Your task to perform on an android device: install app "Duolingo: language lessons" Image 0: 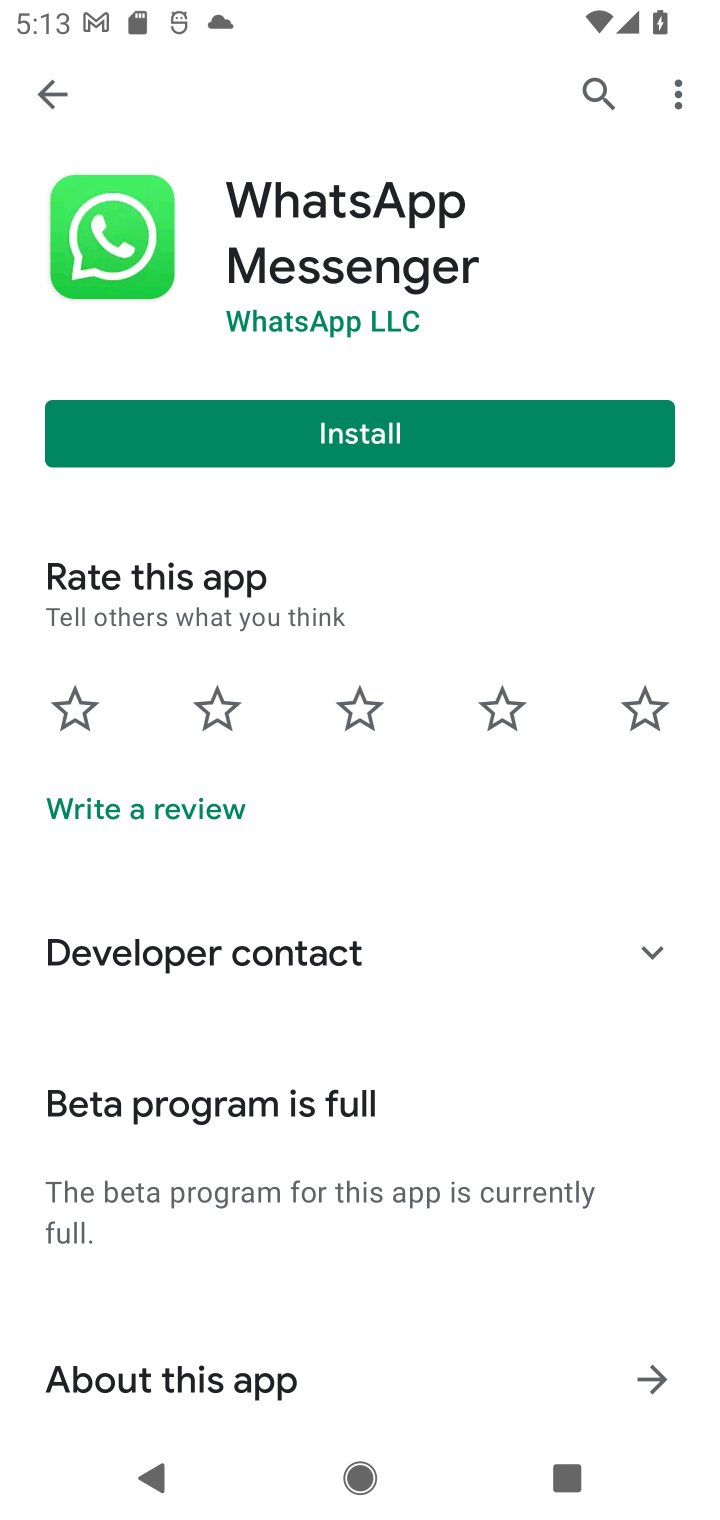
Step 0: click (713, 404)
Your task to perform on an android device: install app "Duolingo: language lessons" Image 1: 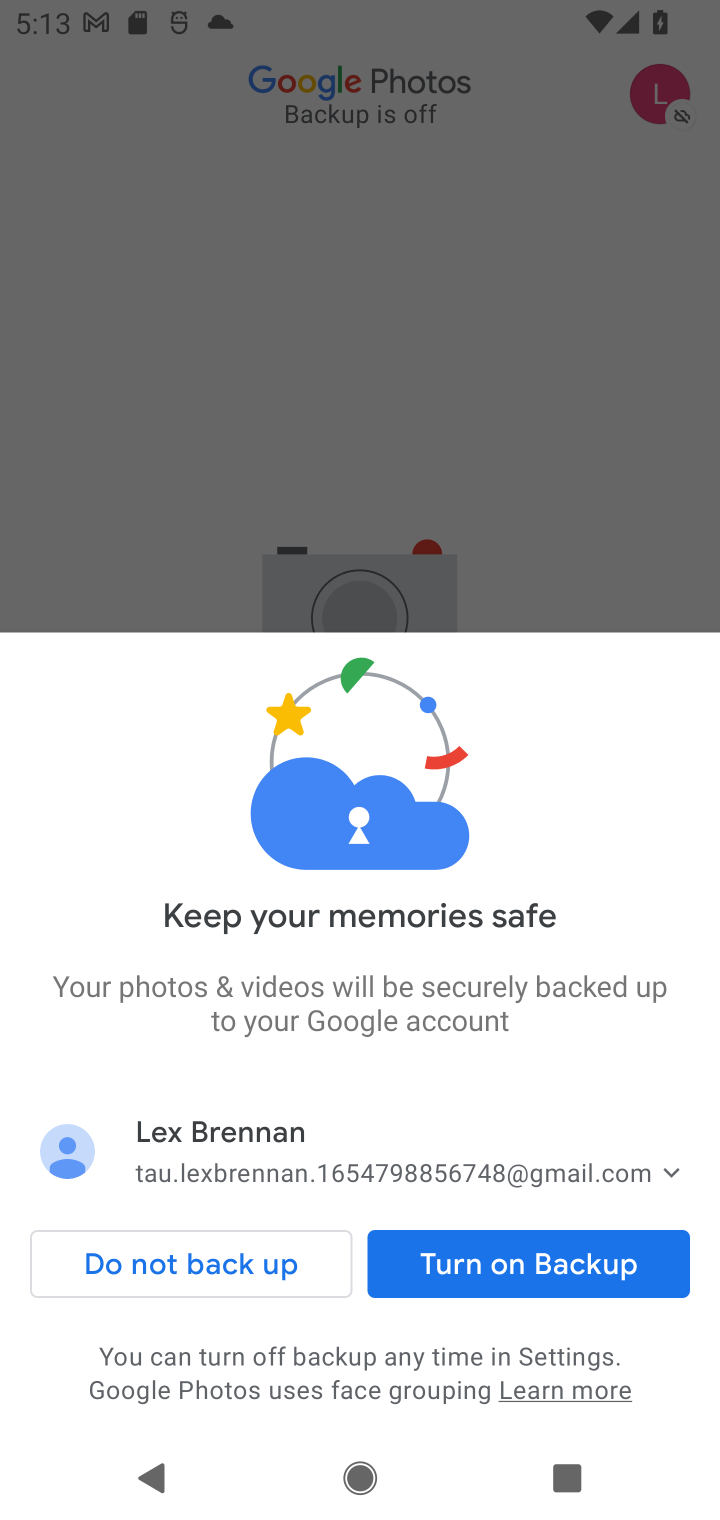
Step 1: press home button
Your task to perform on an android device: install app "Duolingo: language lessons" Image 2: 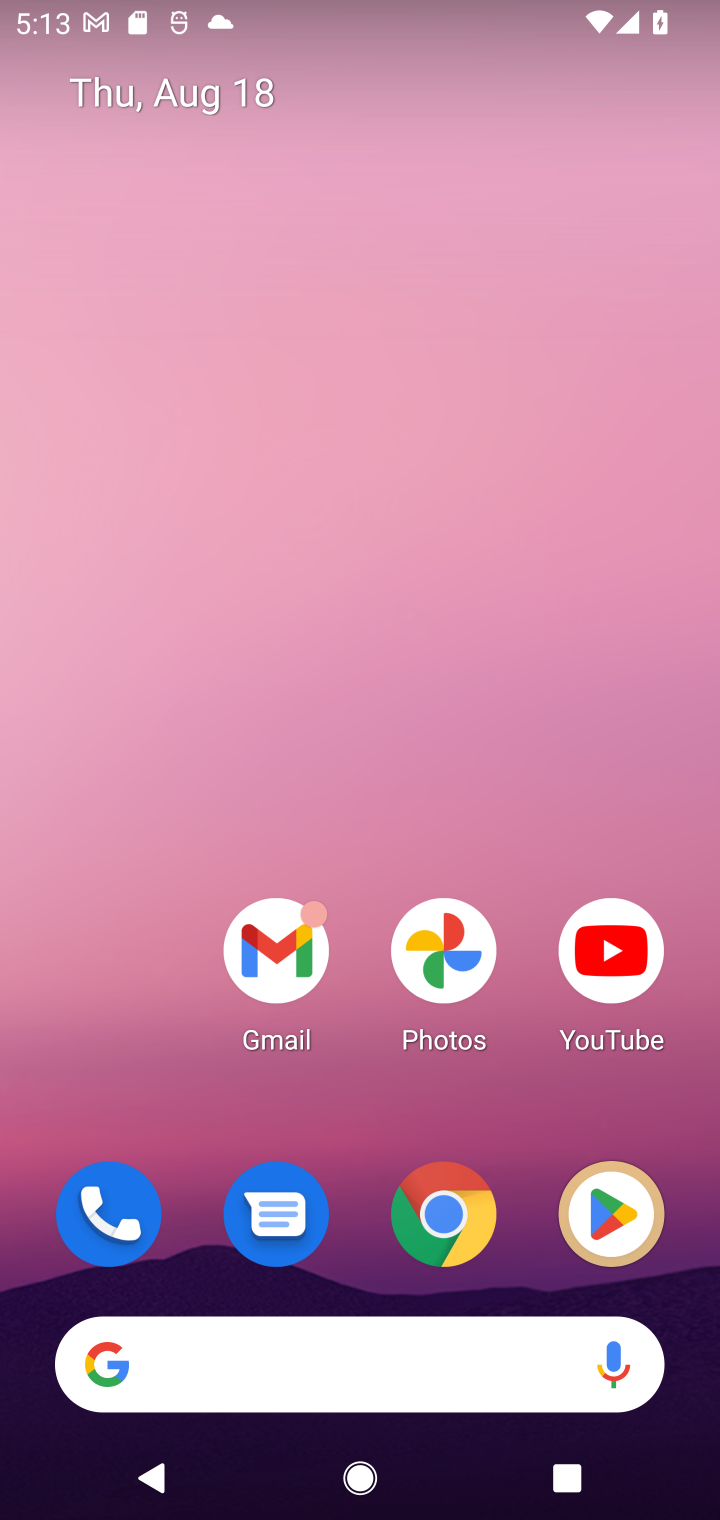
Step 2: click (610, 1220)
Your task to perform on an android device: install app "Duolingo: language lessons" Image 3: 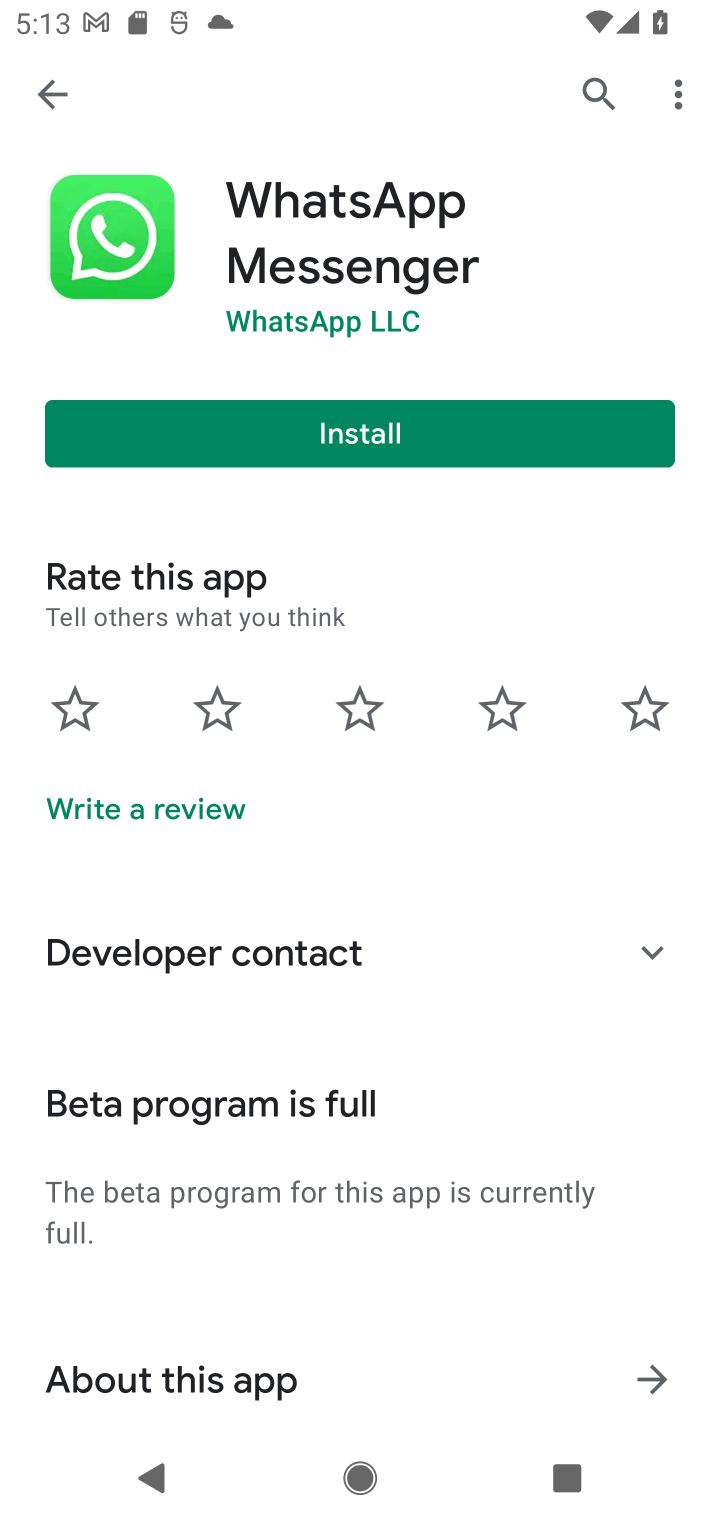
Step 3: click (51, 87)
Your task to perform on an android device: install app "Duolingo: language lessons" Image 4: 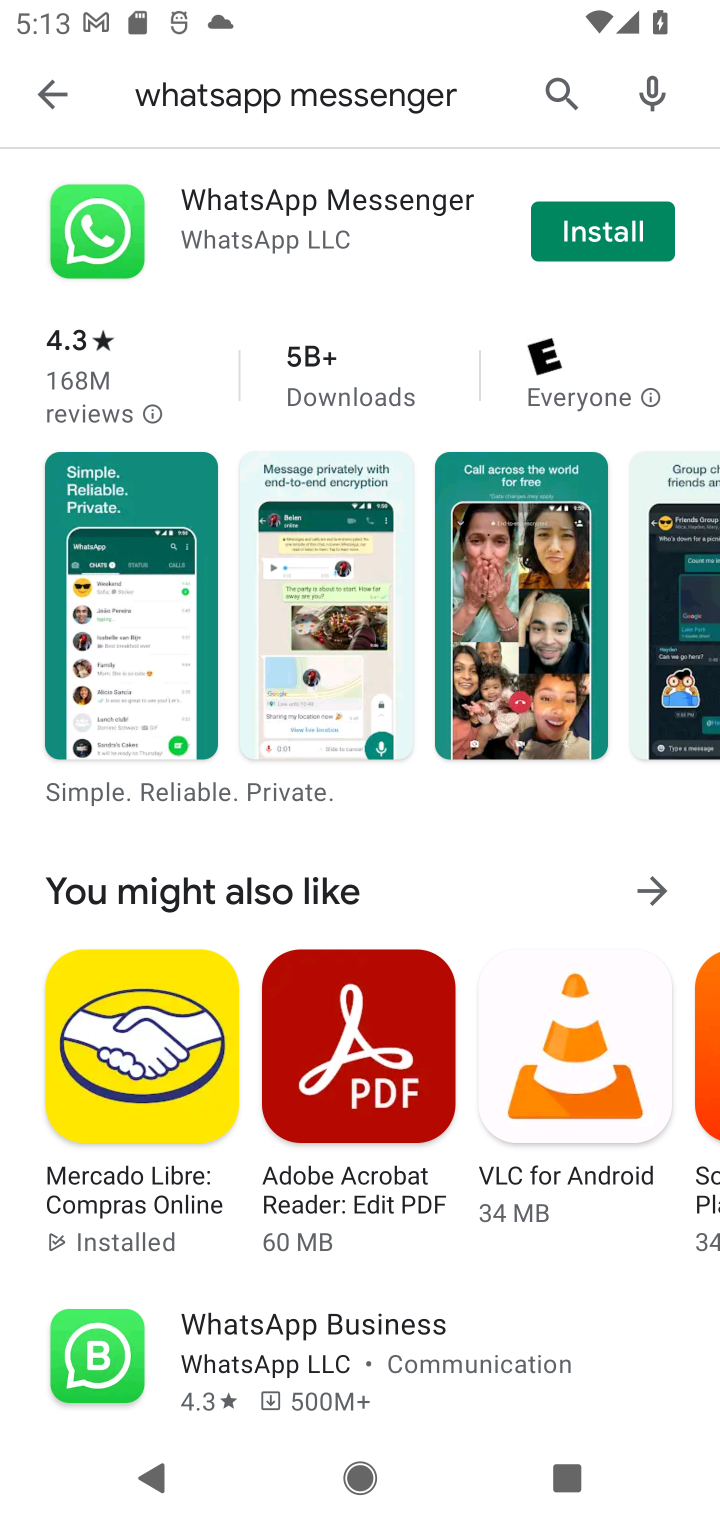
Step 4: click (266, 97)
Your task to perform on an android device: install app "Duolingo: language lessons" Image 5: 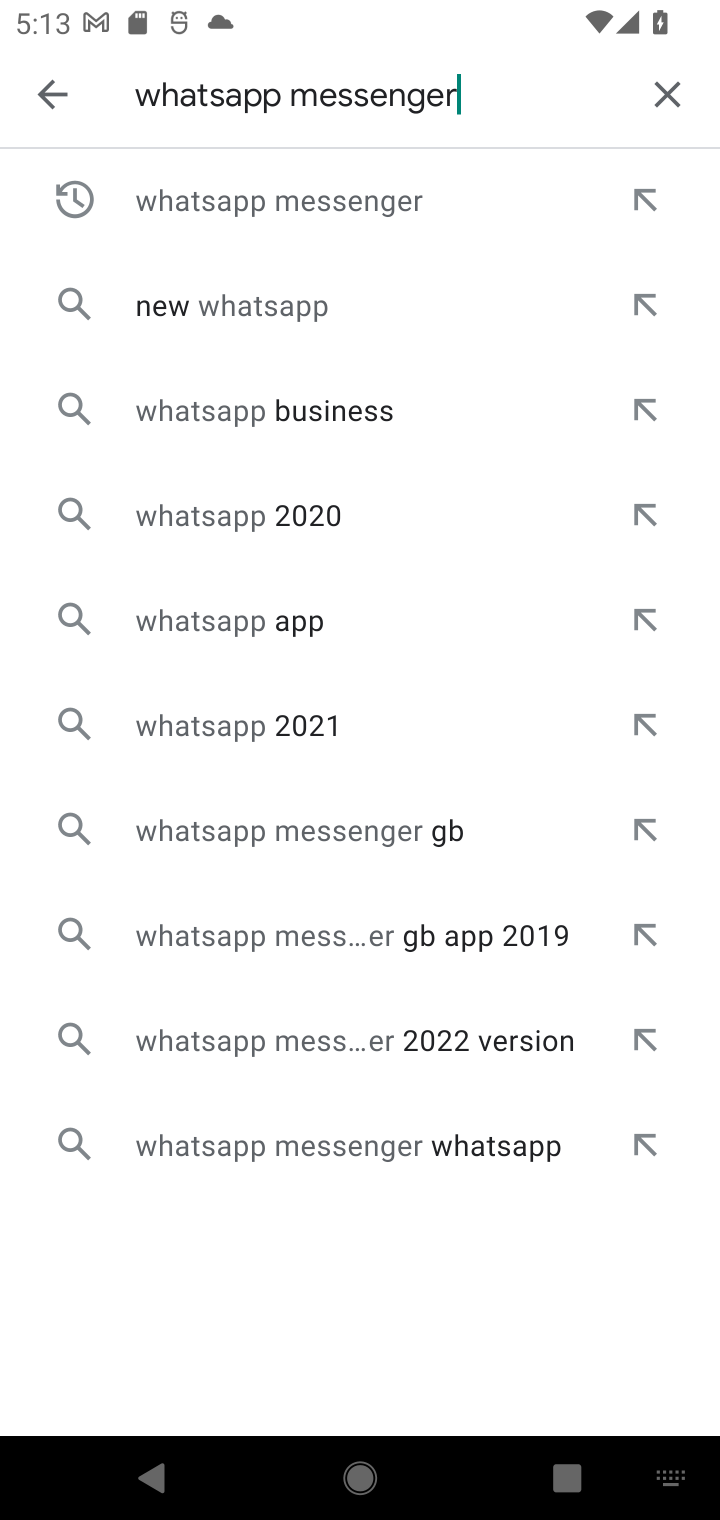
Step 5: click (657, 82)
Your task to perform on an android device: install app "Duolingo: language lessons" Image 6: 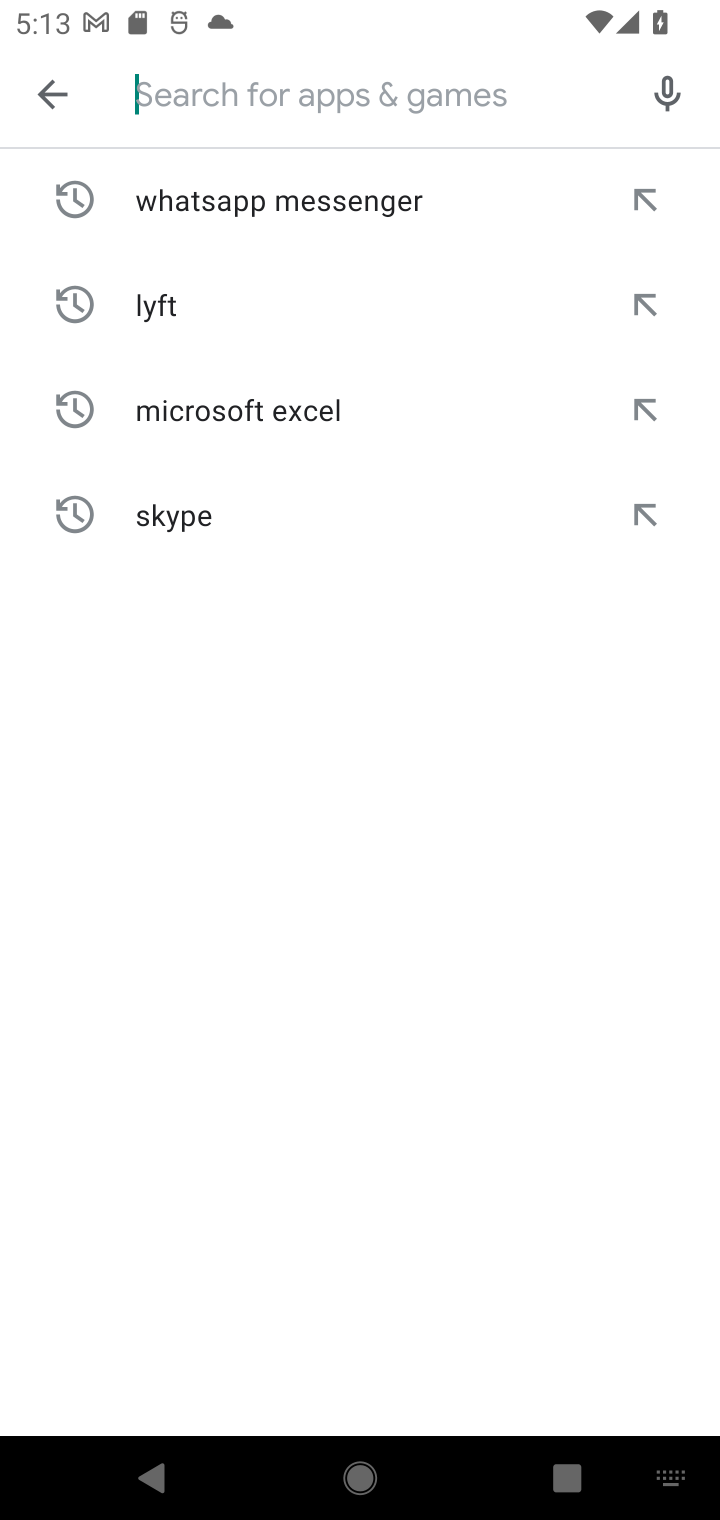
Step 6: type "Duolingo"
Your task to perform on an android device: install app "Duolingo: language lessons" Image 7: 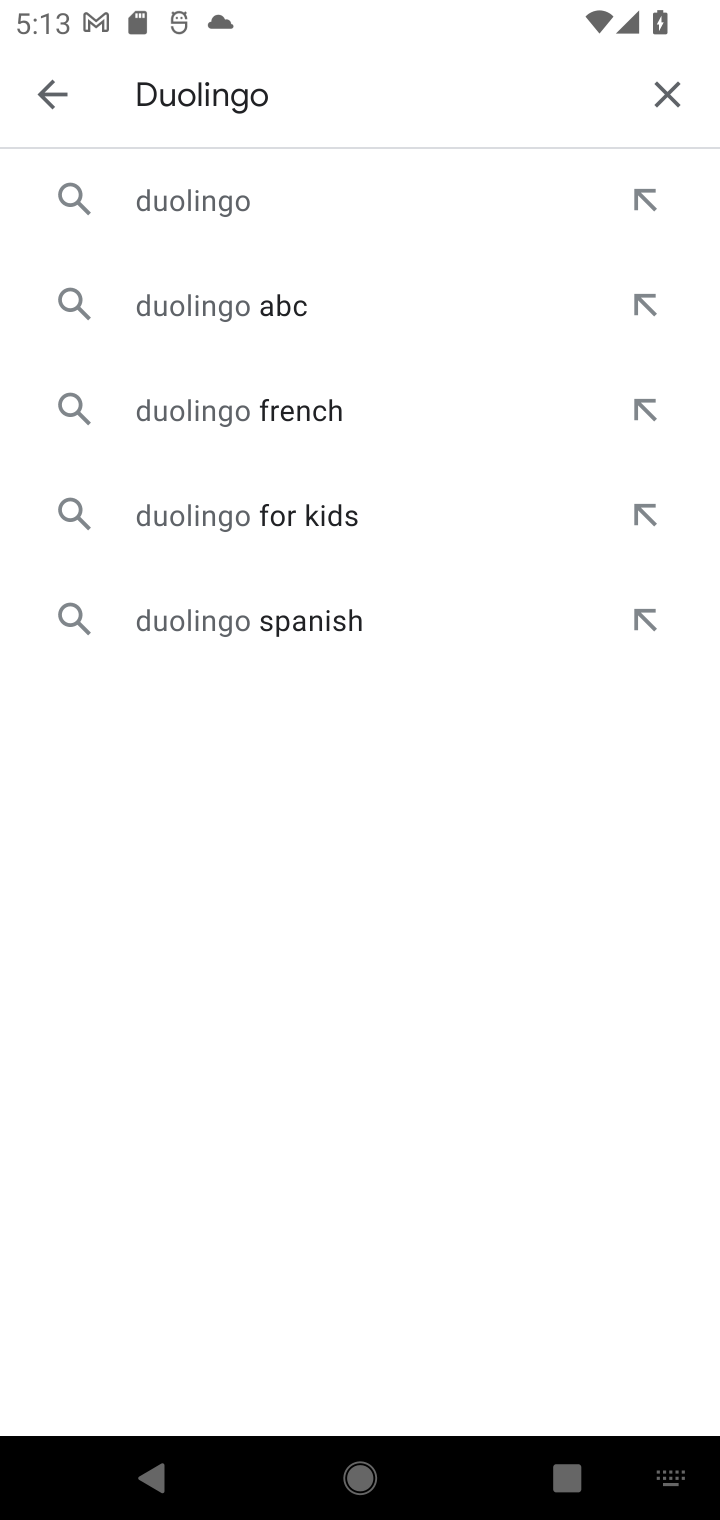
Step 7: click (255, 210)
Your task to perform on an android device: install app "Duolingo: language lessons" Image 8: 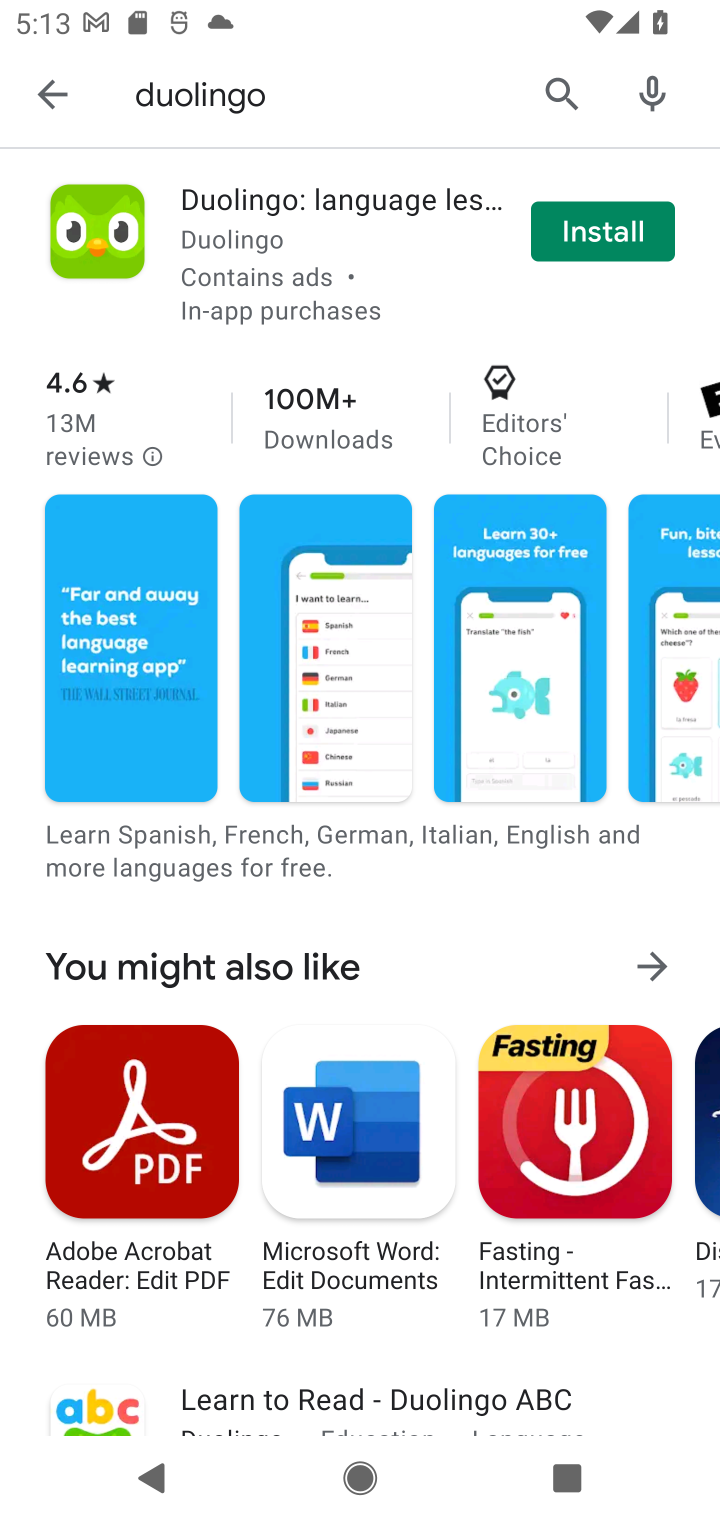
Step 8: click (601, 222)
Your task to perform on an android device: install app "Duolingo: language lessons" Image 9: 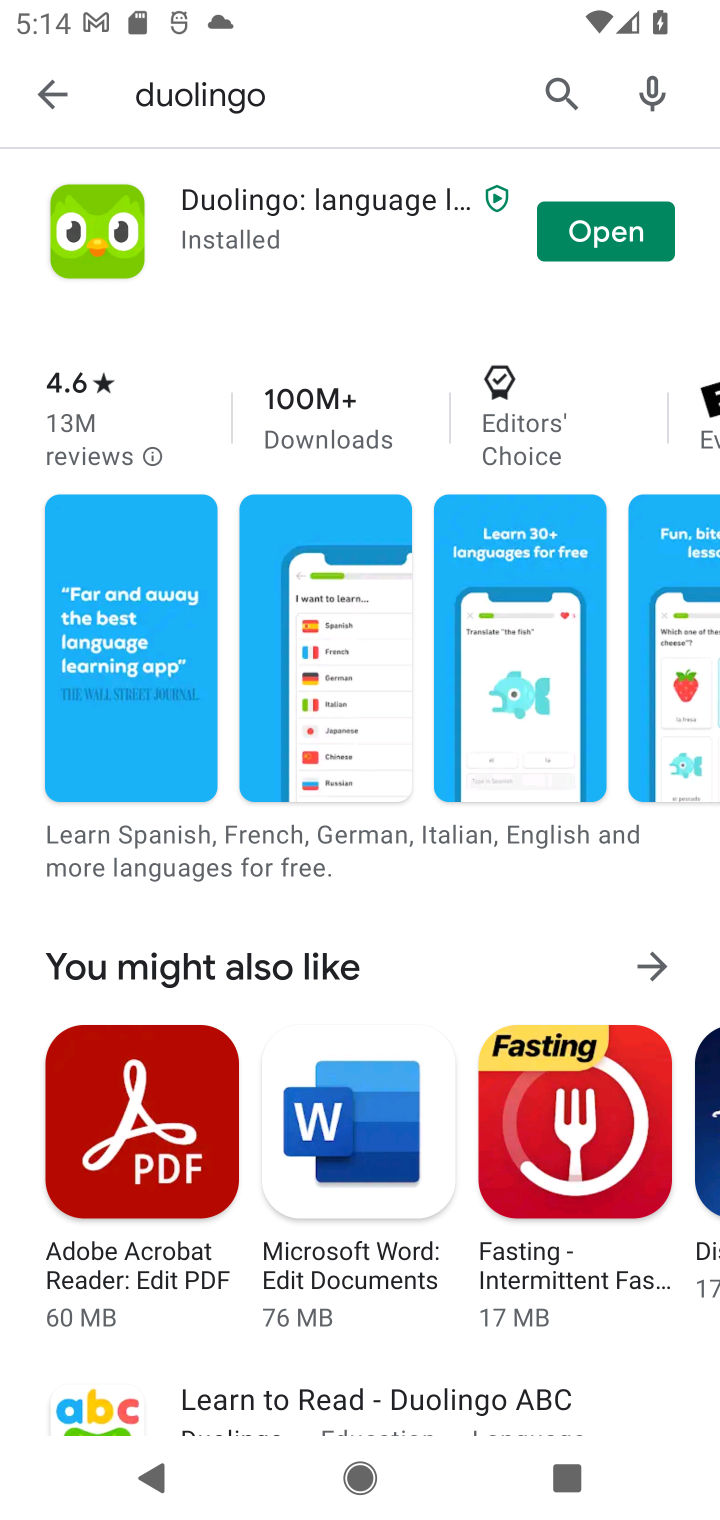
Step 9: task complete